Your task to perform on an android device: change the clock style Image 0: 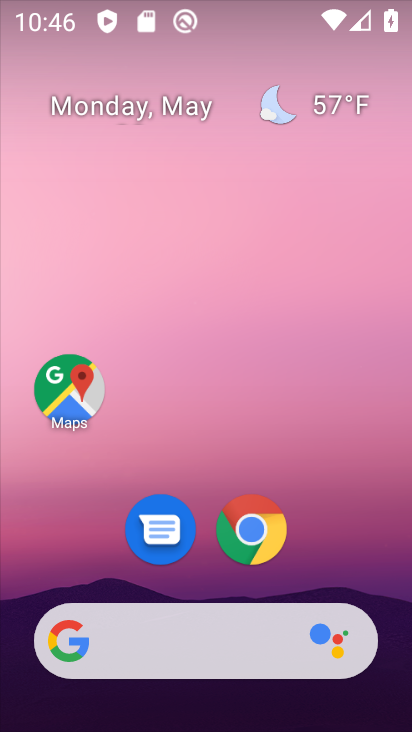
Step 0: drag from (228, 722) to (228, 193)
Your task to perform on an android device: change the clock style Image 1: 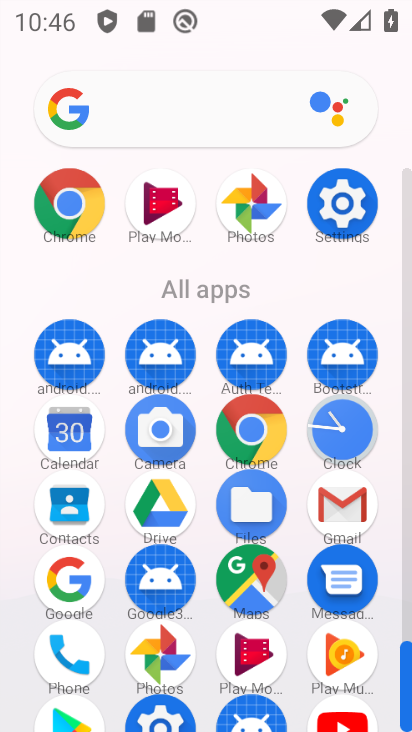
Step 1: click (348, 426)
Your task to perform on an android device: change the clock style Image 2: 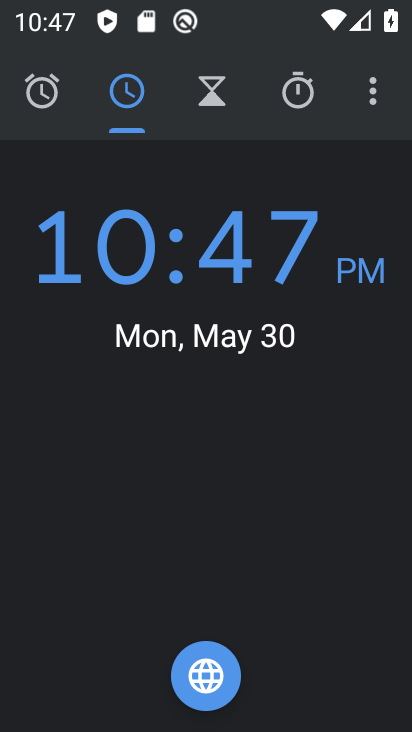
Step 2: click (374, 103)
Your task to perform on an android device: change the clock style Image 3: 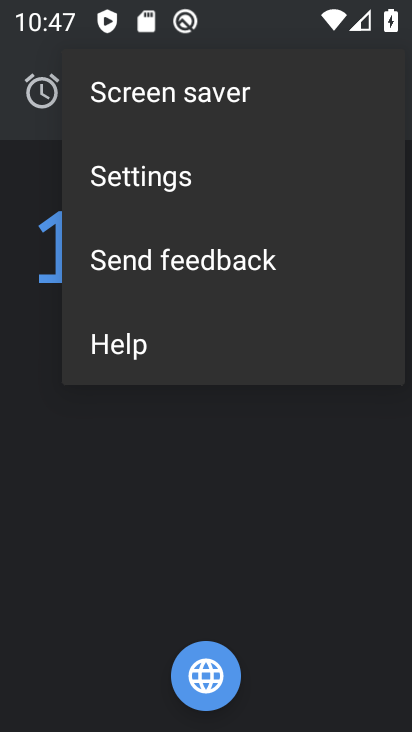
Step 3: click (161, 179)
Your task to perform on an android device: change the clock style Image 4: 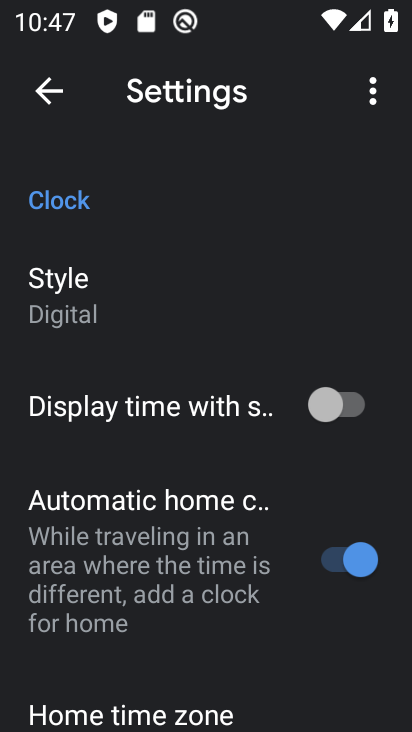
Step 4: click (72, 289)
Your task to perform on an android device: change the clock style Image 5: 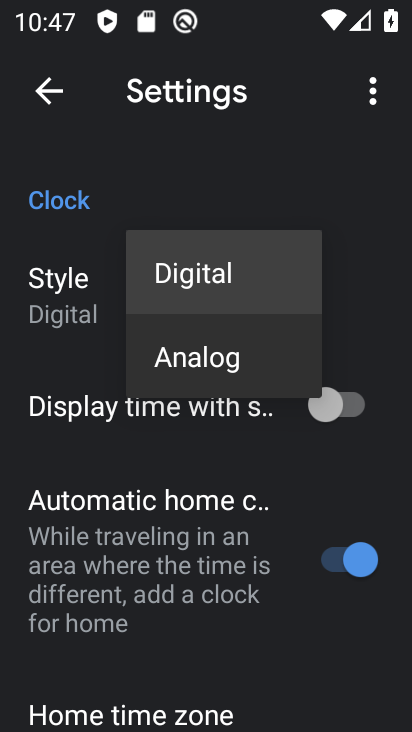
Step 5: click (195, 349)
Your task to perform on an android device: change the clock style Image 6: 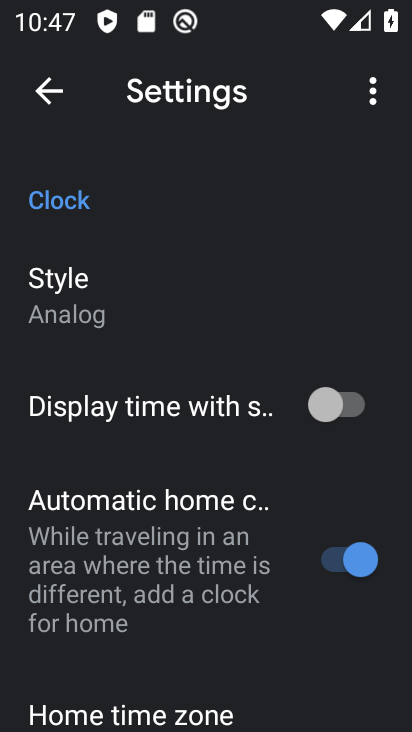
Step 6: task complete